Your task to perform on an android device: Go to Google Image 0: 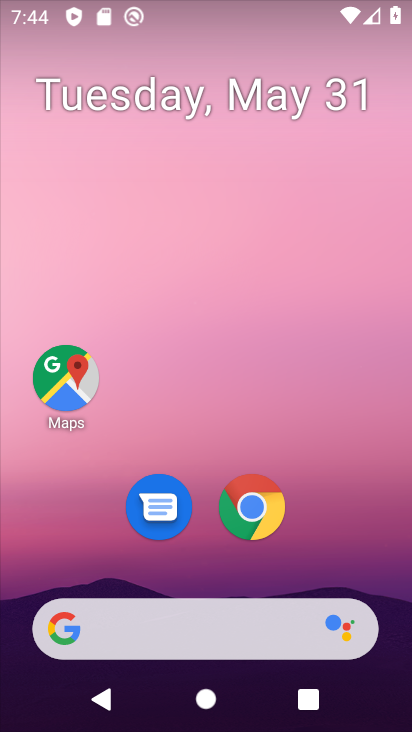
Step 0: drag from (345, 577) to (353, 22)
Your task to perform on an android device: Go to Google Image 1: 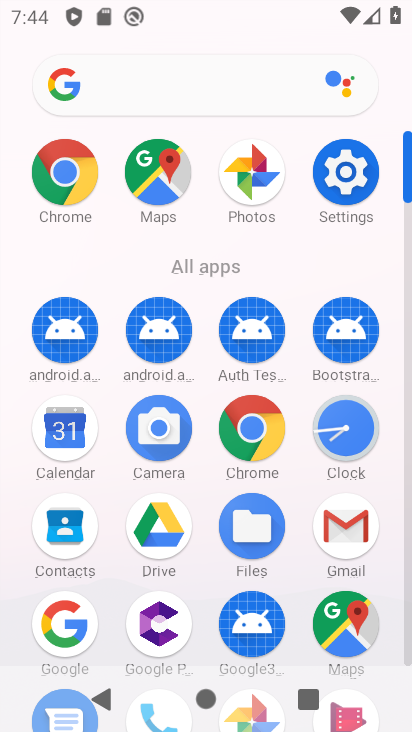
Step 1: click (57, 623)
Your task to perform on an android device: Go to Google Image 2: 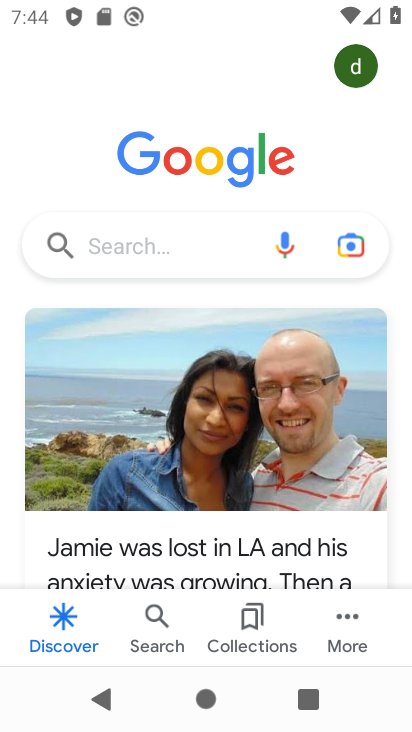
Step 2: task complete